Your task to perform on an android device: Toggle the flashlight Image 0: 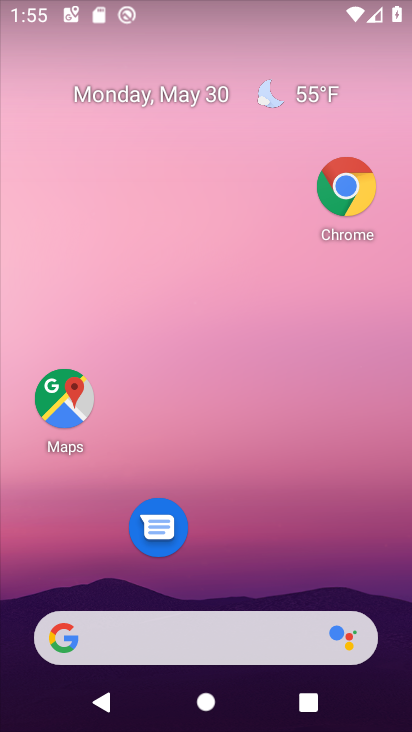
Step 0: drag from (229, 596) to (229, 38)
Your task to perform on an android device: Toggle the flashlight Image 1: 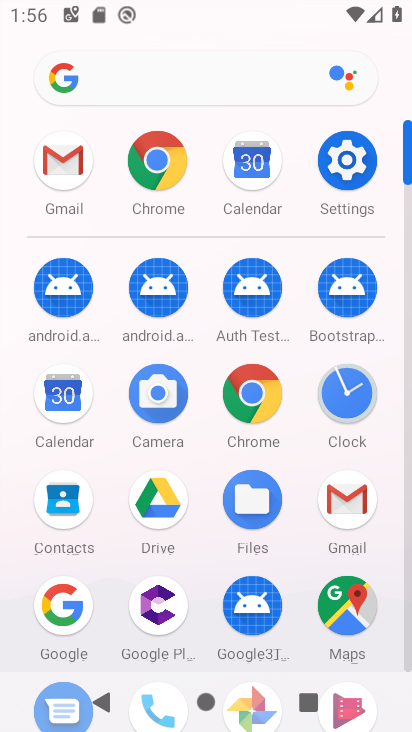
Step 1: click (338, 165)
Your task to perform on an android device: Toggle the flashlight Image 2: 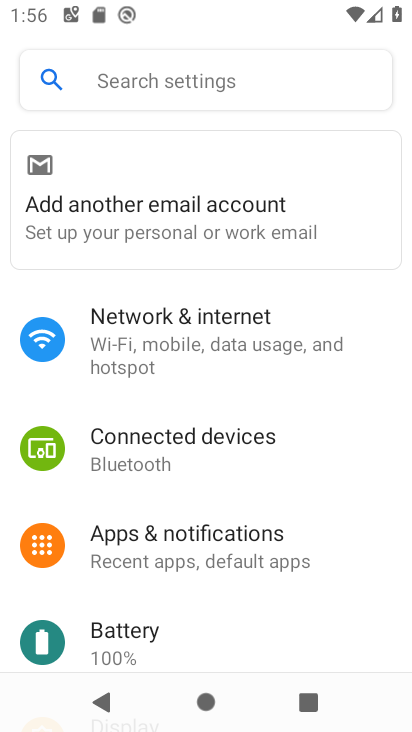
Step 2: click (262, 80)
Your task to perform on an android device: Toggle the flashlight Image 3: 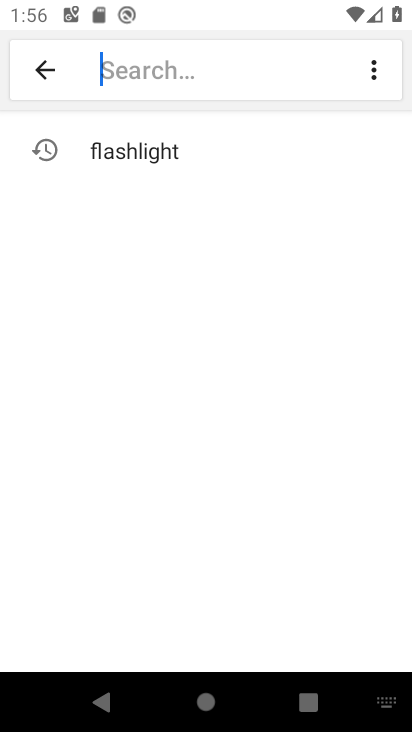
Step 3: click (201, 157)
Your task to perform on an android device: Toggle the flashlight Image 4: 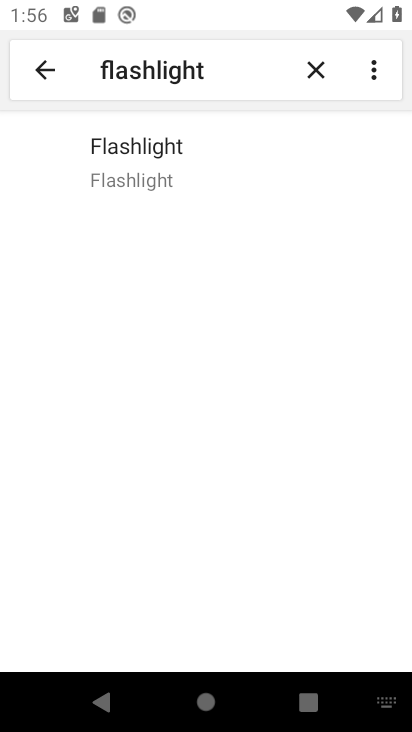
Step 4: click (201, 171)
Your task to perform on an android device: Toggle the flashlight Image 5: 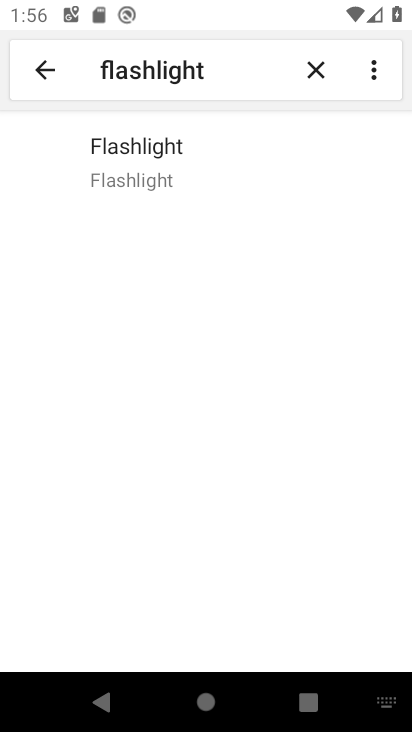
Step 5: task complete